Your task to perform on an android device: Search for pizza restaurants on Maps Image 0: 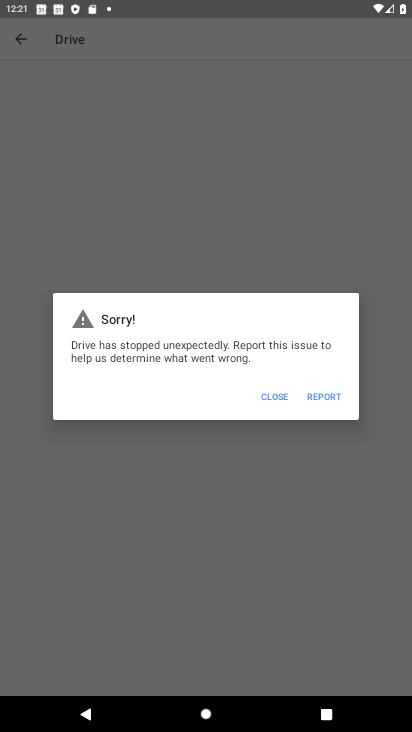
Step 0: press back button
Your task to perform on an android device: Search for pizza restaurants on Maps Image 1: 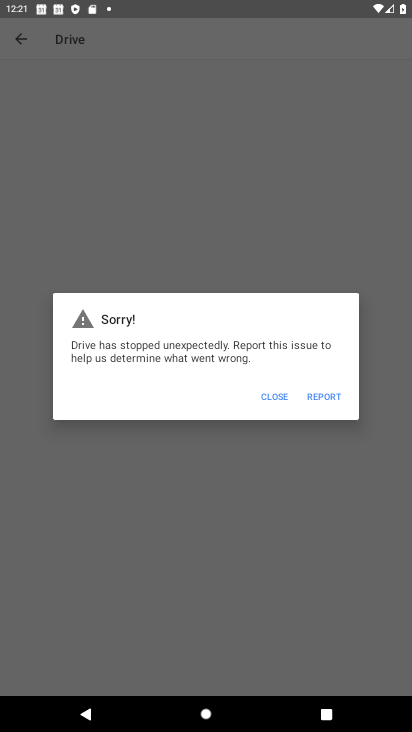
Step 1: press home button
Your task to perform on an android device: Search for pizza restaurants on Maps Image 2: 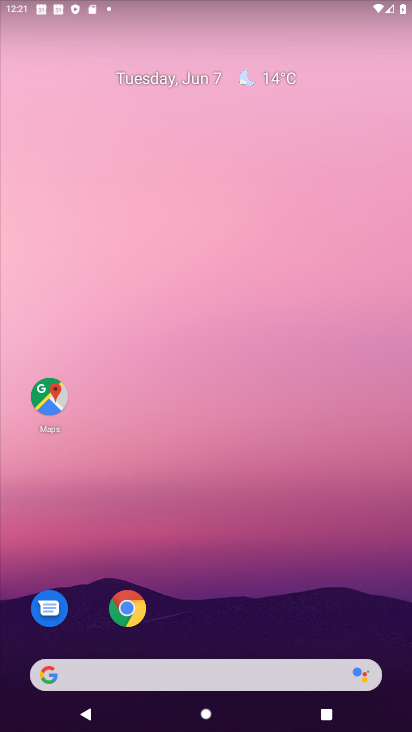
Step 2: drag from (185, 586) to (122, 65)
Your task to perform on an android device: Search for pizza restaurants on Maps Image 3: 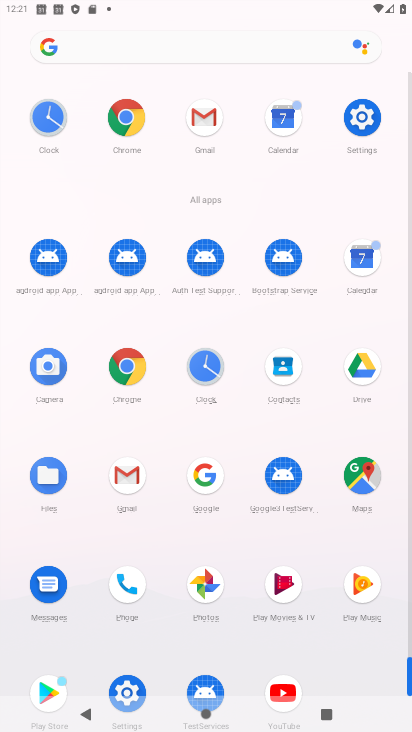
Step 3: click (362, 474)
Your task to perform on an android device: Search for pizza restaurants on Maps Image 4: 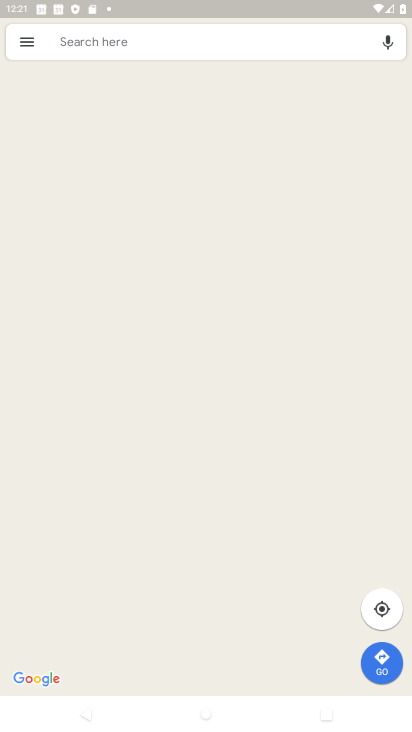
Step 4: click (158, 39)
Your task to perform on an android device: Search for pizza restaurants on Maps Image 5: 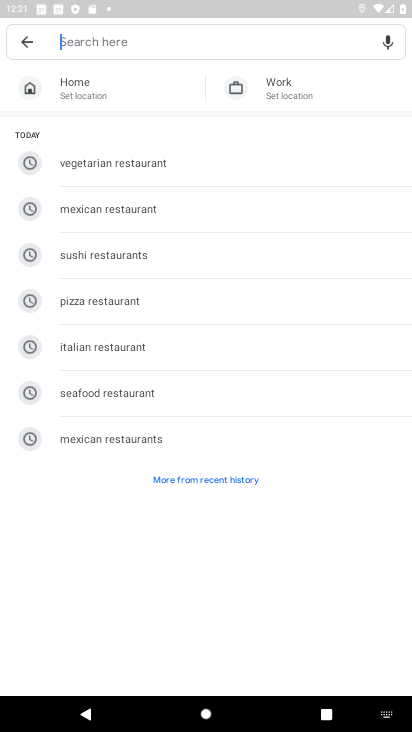
Step 5: type "pizza restaurants"
Your task to perform on an android device: Search for pizza restaurants on Maps Image 6: 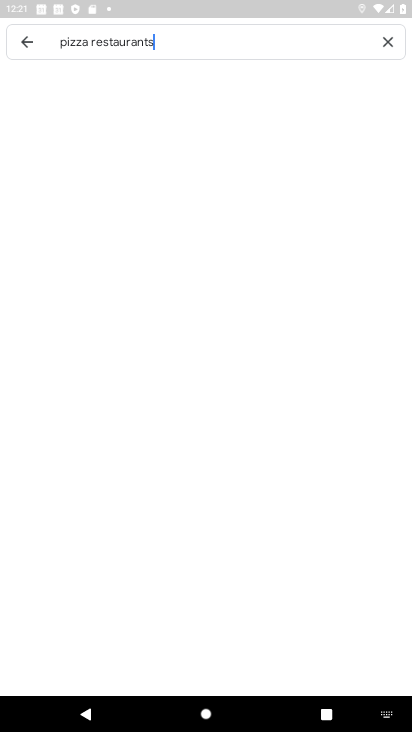
Step 6: type ""
Your task to perform on an android device: Search for pizza restaurants on Maps Image 7: 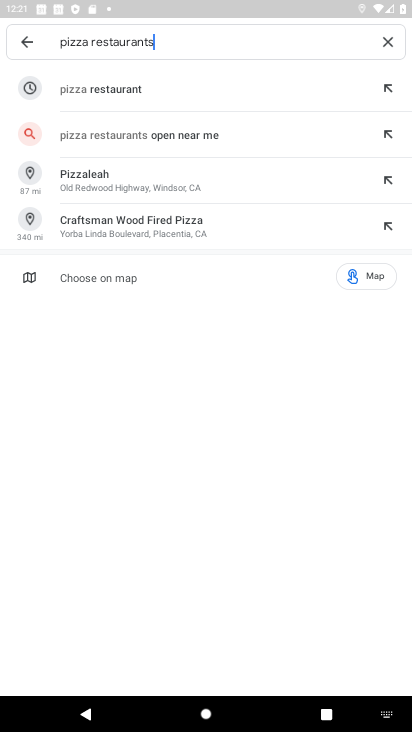
Step 7: click (112, 89)
Your task to perform on an android device: Search for pizza restaurants on Maps Image 8: 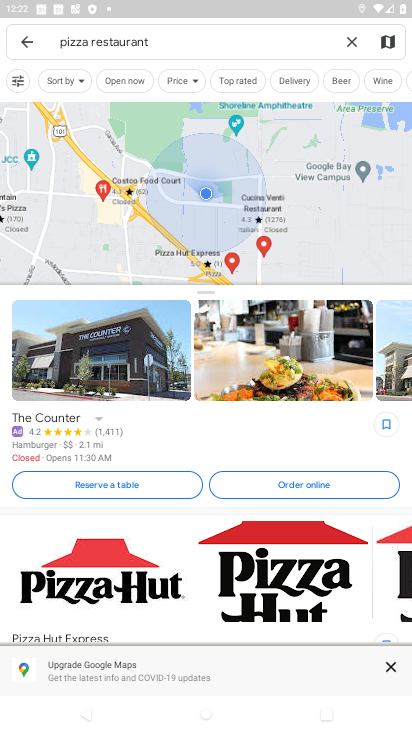
Step 8: task complete